Your task to perform on an android device: find photos in the google photos app Image 0: 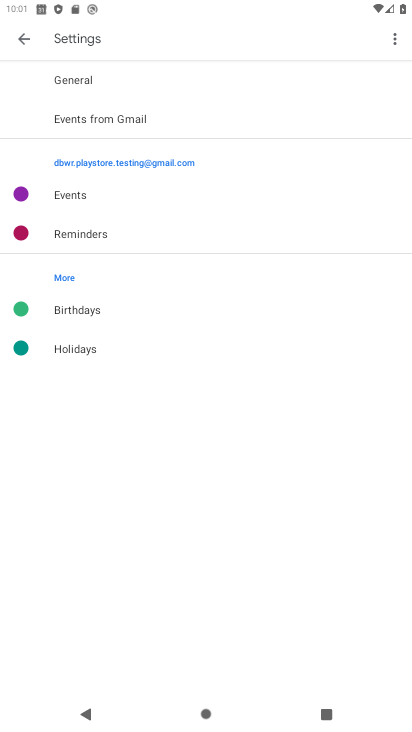
Step 0: press home button
Your task to perform on an android device: find photos in the google photos app Image 1: 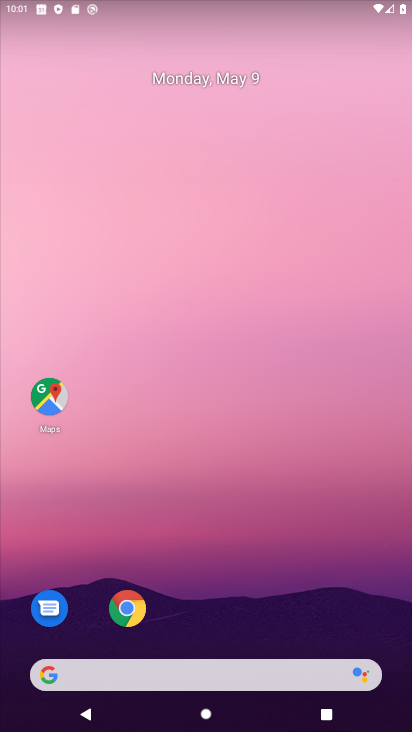
Step 1: drag from (186, 425) to (258, 25)
Your task to perform on an android device: find photos in the google photos app Image 2: 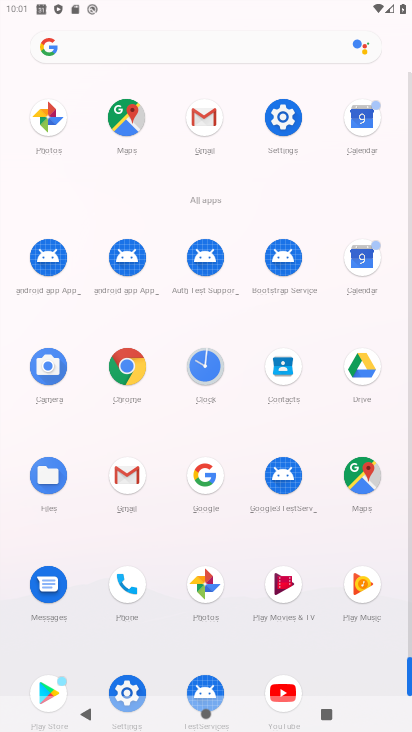
Step 2: click (202, 586)
Your task to perform on an android device: find photos in the google photos app Image 3: 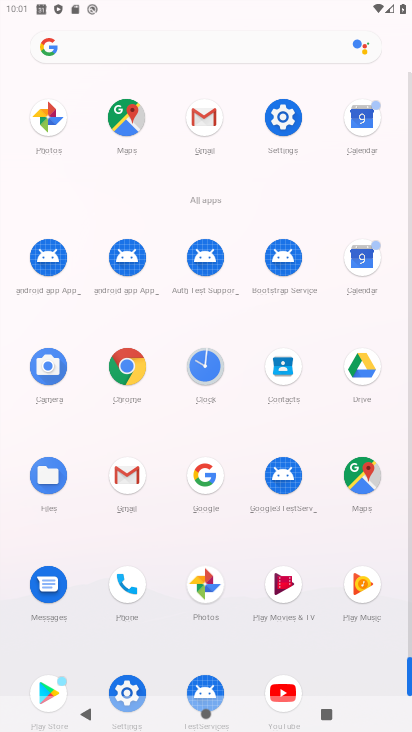
Step 3: click (202, 586)
Your task to perform on an android device: find photos in the google photos app Image 4: 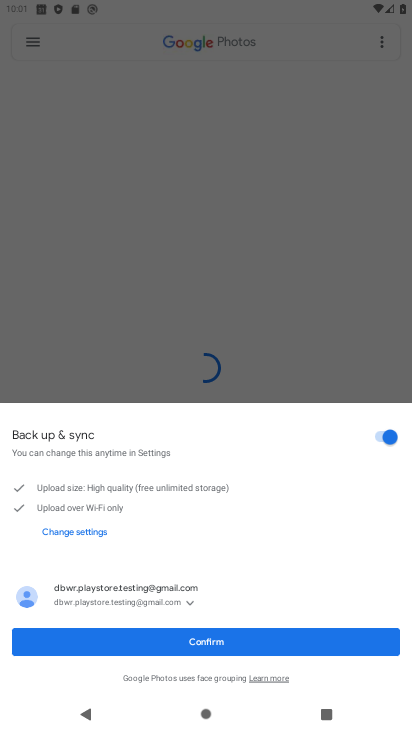
Step 4: click (226, 644)
Your task to perform on an android device: find photos in the google photos app Image 5: 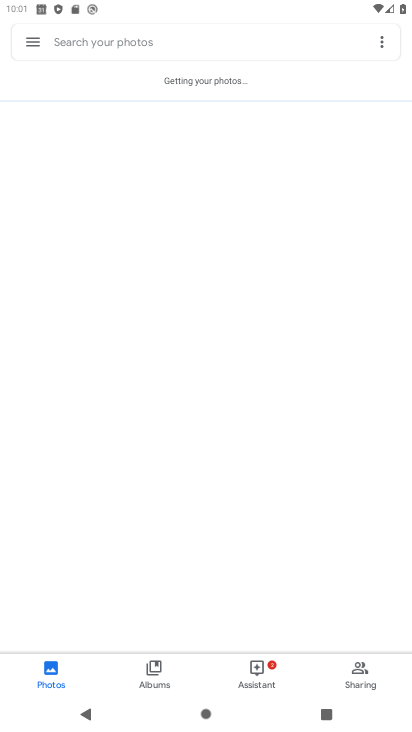
Step 5: task complete